Your task to perform on an android device: Go to battery settings Image 0: 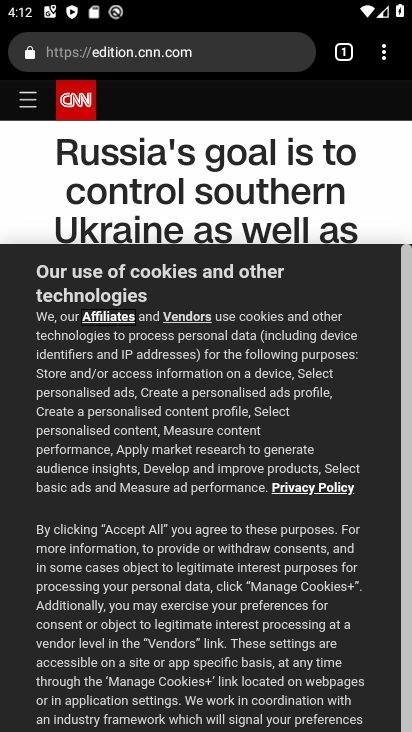
Step 0: press home button
Your task to perform on an android device: Go to battery settings Image 1: 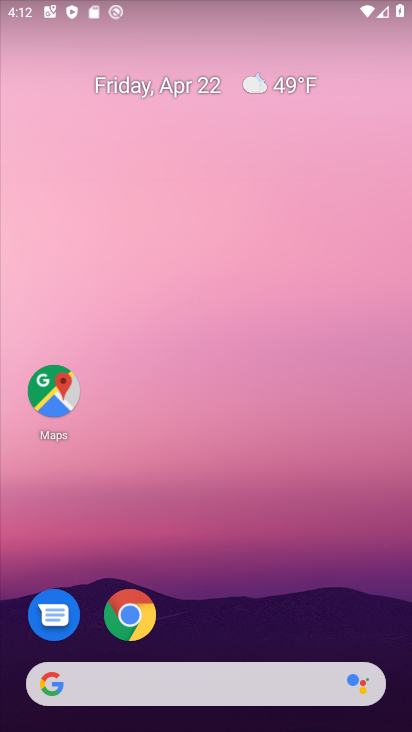
Step 1: drag from (241, 671) to (227, 169)
Your task to perform on an android device: Go to battery settings Image 2: 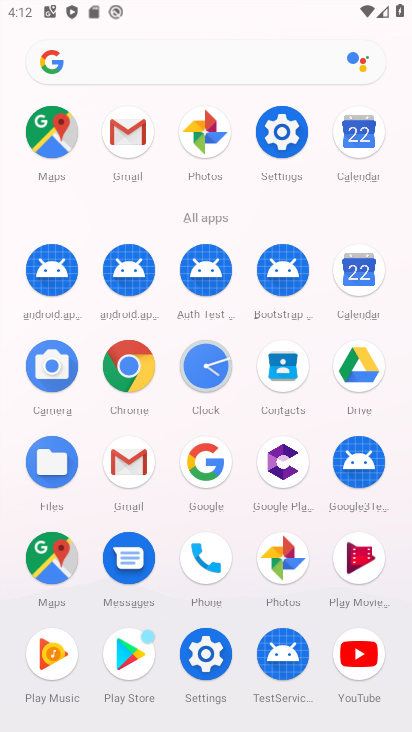
Step 2: click (280, 123)
Your task to perform on an android device: Go to battery settings Image 3: 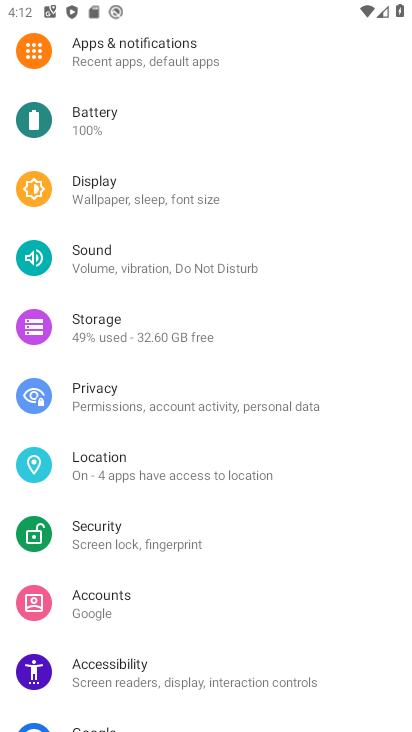
Step 3: click (88, 117)
Your task to perform on an android device: Go to battery settings Image 4: 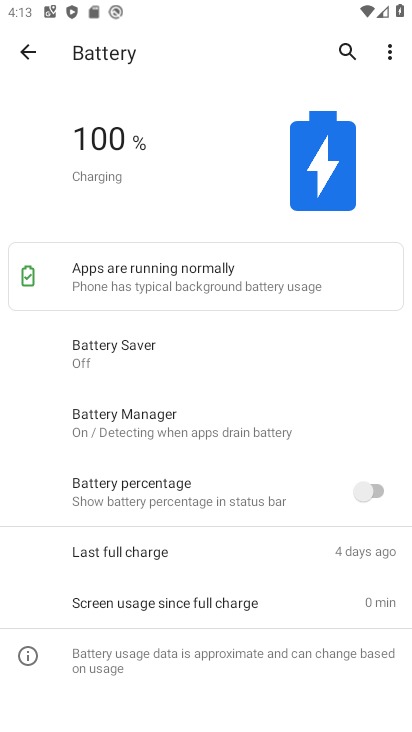
Step 4: task complete